Your task to perform on an android device: Go to Maps Image 0: 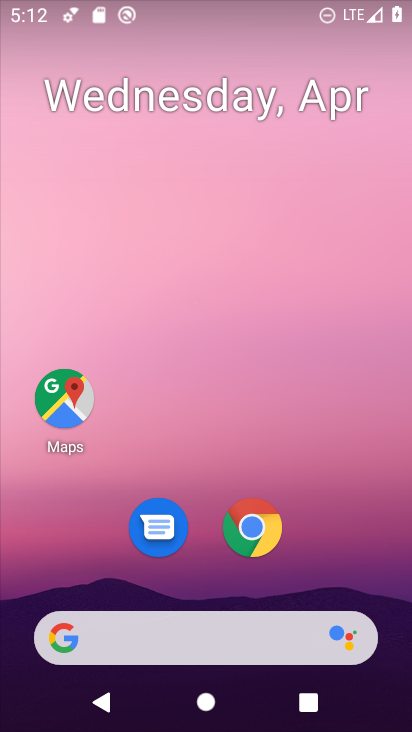
Step 0: click (60, 403)
Your task to perform on an android device: Go to Maps Image 1: 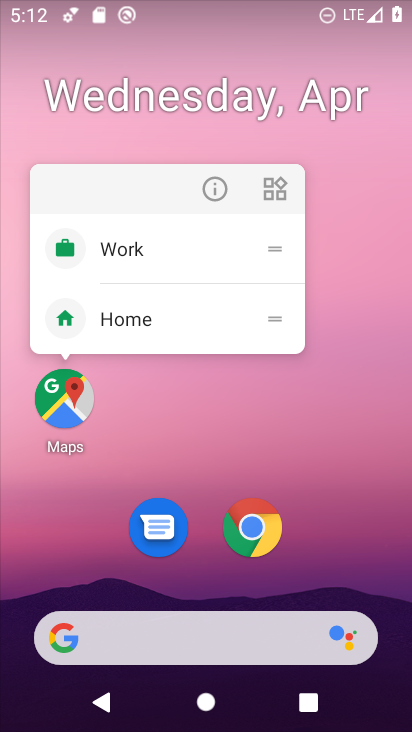
Step 1: click (60, 403)
Your task to perform on an android device: Go to Maps Image 2: 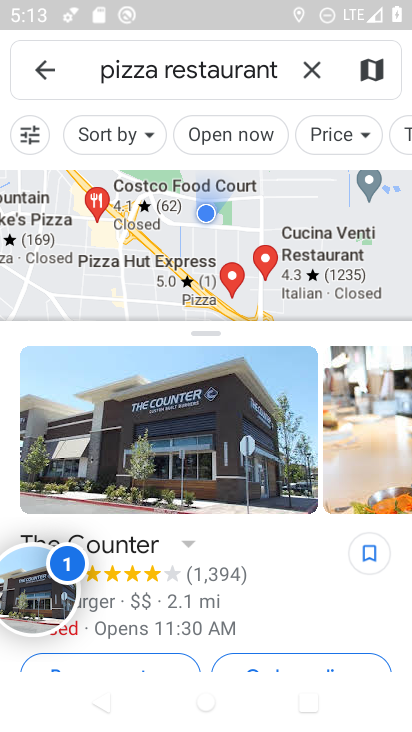
Step 2: task complete